Your task to perform on an android device: turn smart compose on in the gmail app Image 0: 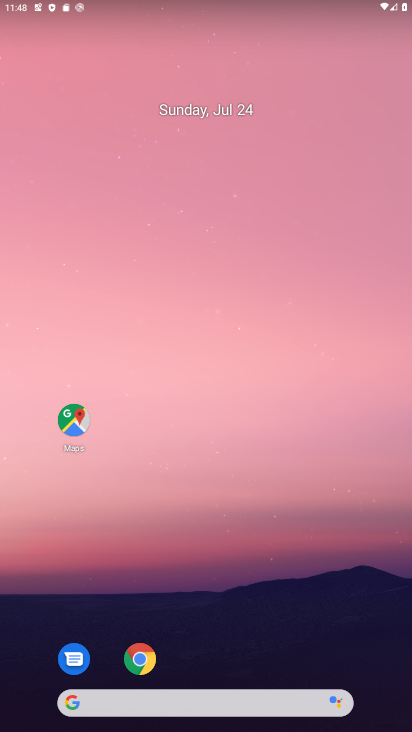
Step 0: drag from (31, 667) to (278, 193)
Your task to perform on an android device: turn smart compose on in the gmail app Image 1: 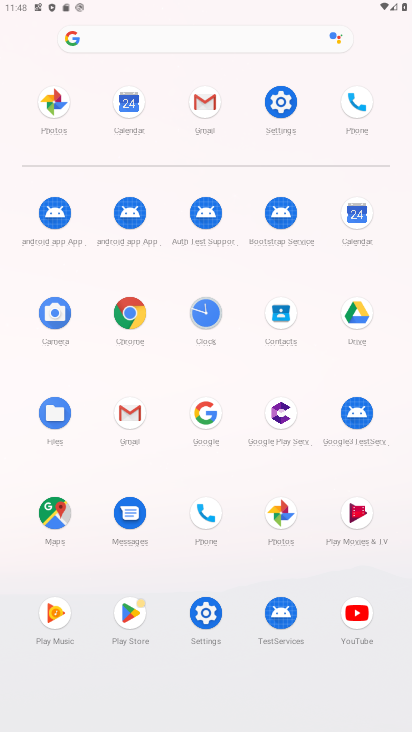
Step 1: click (130, 423)
Your task to perform on an android device: turn smart compose on in the gmail app Image 2: 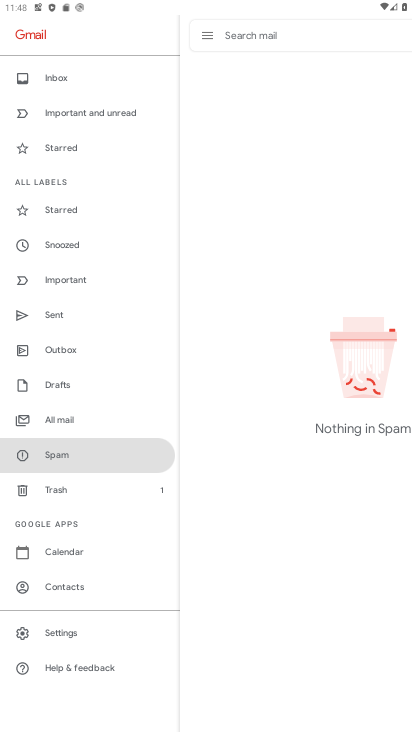
Step 2: click (62, 636)
Your task to perform on an android device: turn smart compose on in the gmail app Image 3: 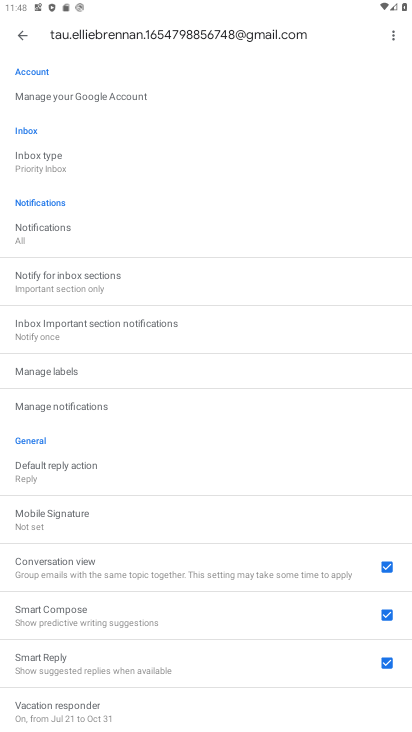
Step 3: task complete